Your task to perform on an android device: check battery use Image 0: 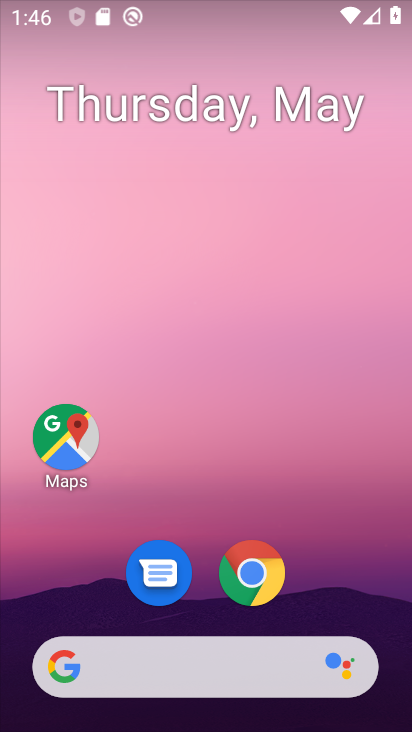
Step 0: drag from (82, 620) to (262, 35)
Your task to perform on an android device: check battery use Image 1: 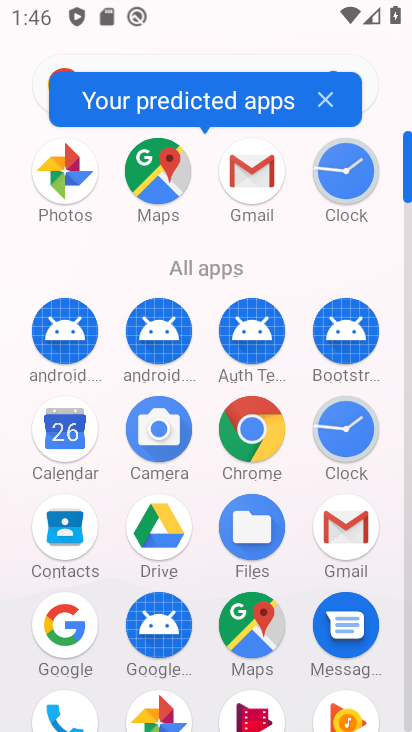
Step 1: drag from (238, 606) to (329, 376)
Your task to perform on an android device: check battery use Image 2: 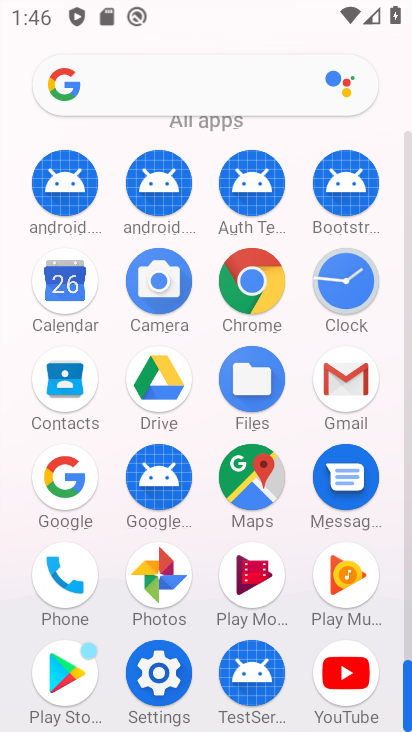
Step 2: click (158, 674)
Your task to perform on an android device: check battery use Image 3: 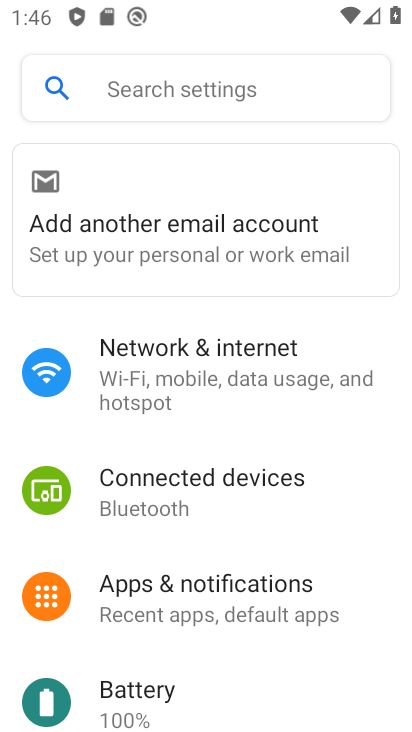
Step 3: drag from (220, 597) to (390, 166)
Your task to perform on an android device: check battery use Image 4: 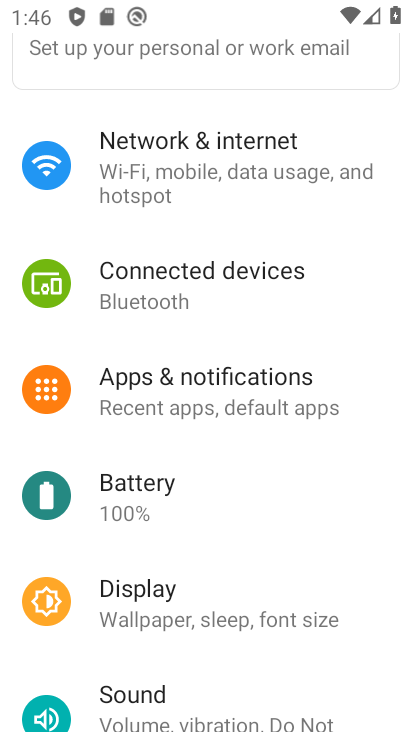
Step 4: drag from (186, 645) to (327, 275)
Your task to perform on an android device: check battery use Image 5: 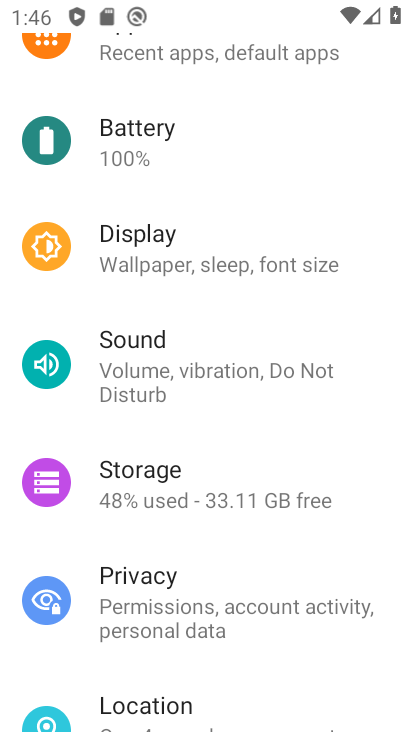
Step 5: drag from (170, 661) to (307, 278)
Your task to perform on an android device: check battery use Image 6: 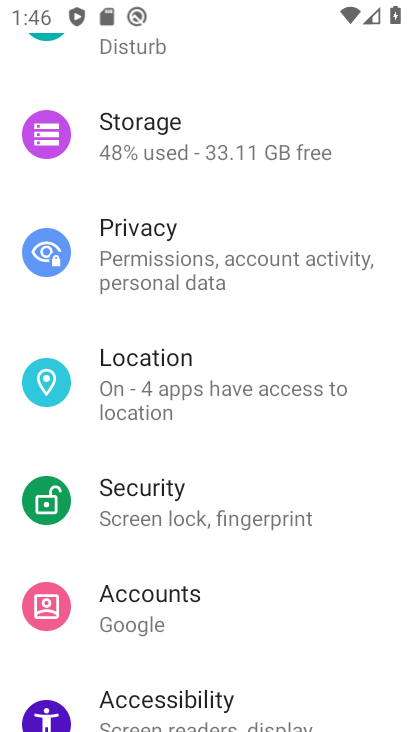
Step 6: drag from (211, 209) to (223, 574)
Your task to perform on an android device: check battery use Image 7: 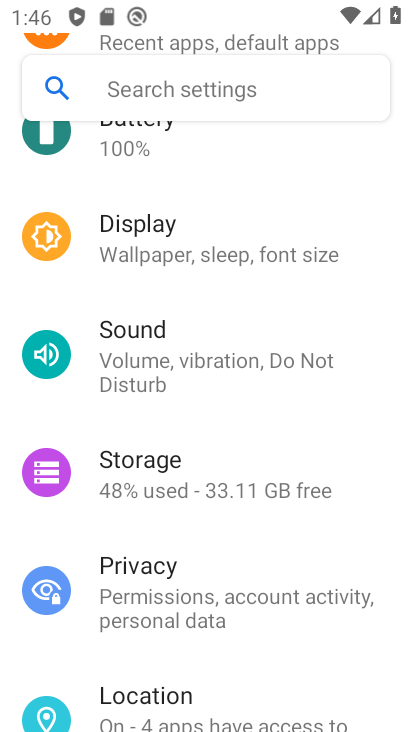
Step 7: drag from (185, 197) to (183, 449)
Your task to perform on an android device: check battery use Image 8: 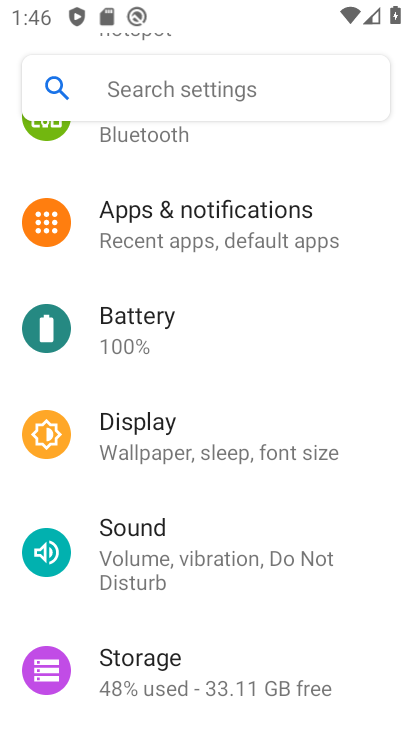
Step 8: click (195, 331)
Your task to perform on an android device: check battery use Image 9: 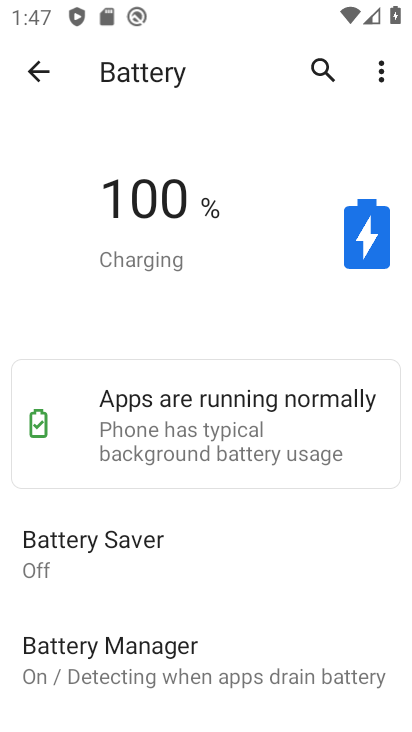
Step 9: click (386, 85)
Your task to perform on an android device: check battery use Image 10: 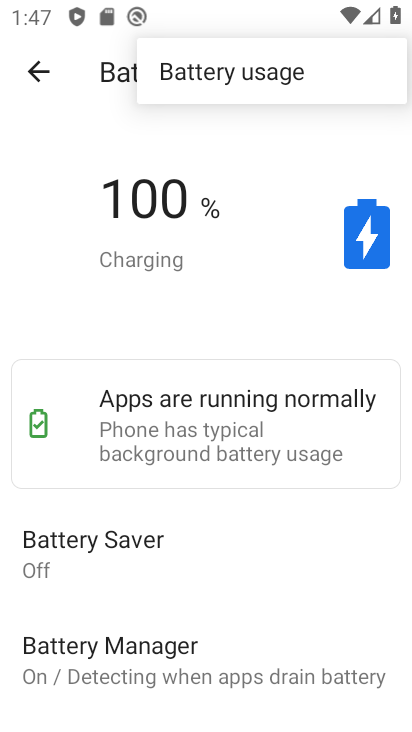
Step 10: click (372, 95)
Your task to perform on an android device: check battery use Image 11: 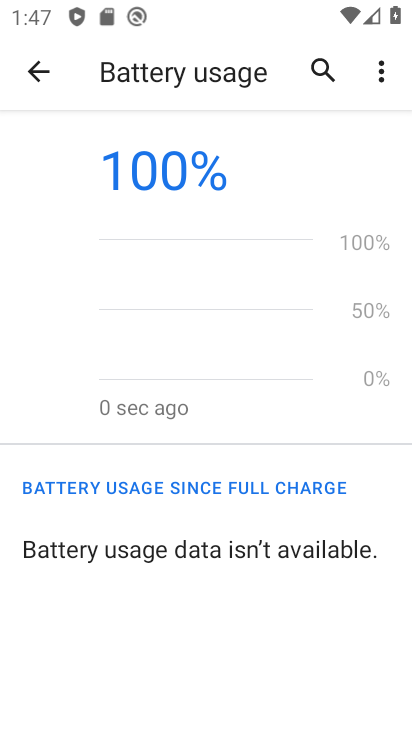
Step 11: task complete